Your task to perform on an android device: Go to Maps Image 0: 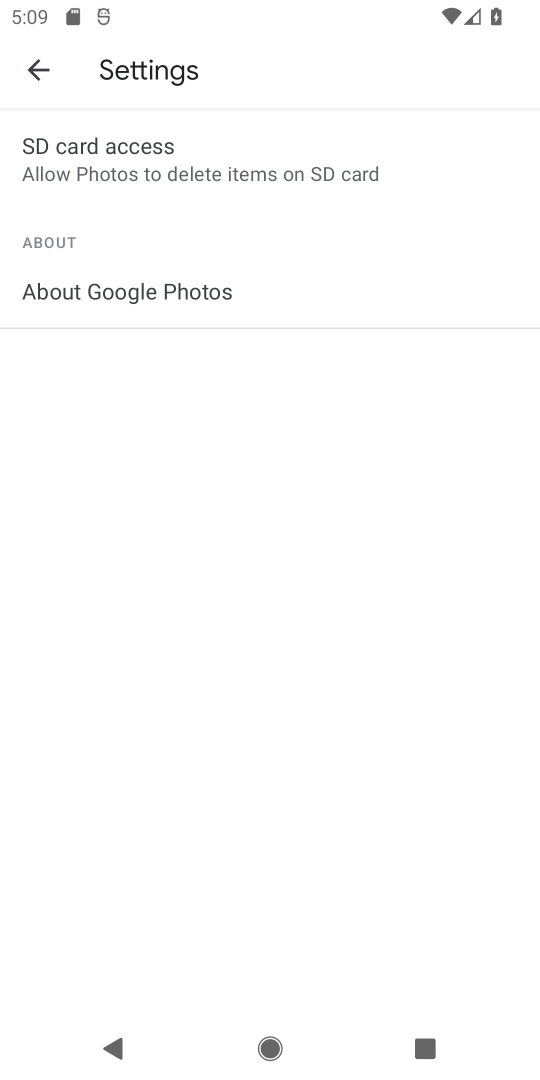
Step 0: press home button
Your task to perform on an android device: Go to Maps Image 1: 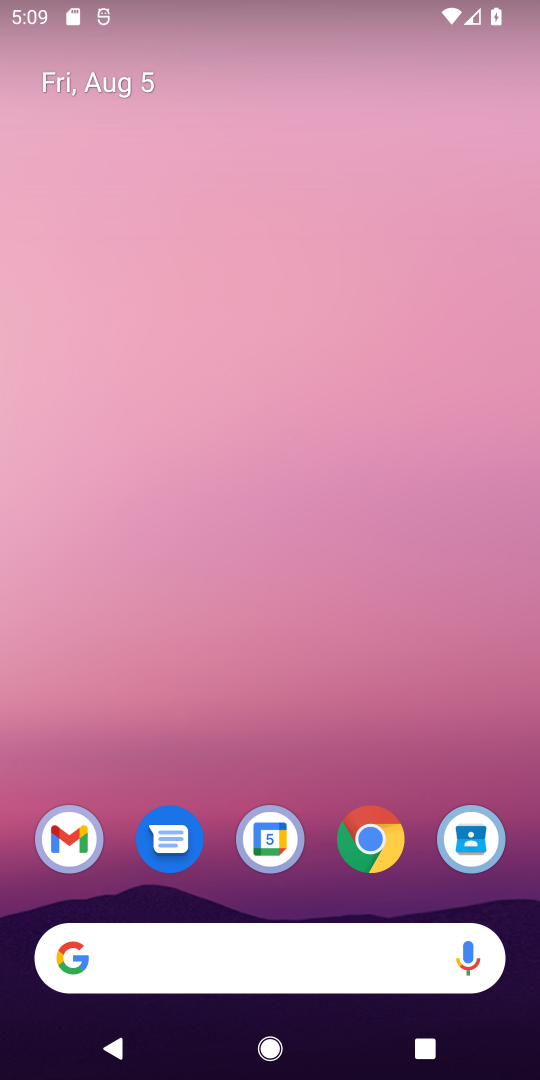
Step 1: drag from (279, 699) to (254, 234)
Your task to perform on an android device: Go to Maps Image 2: 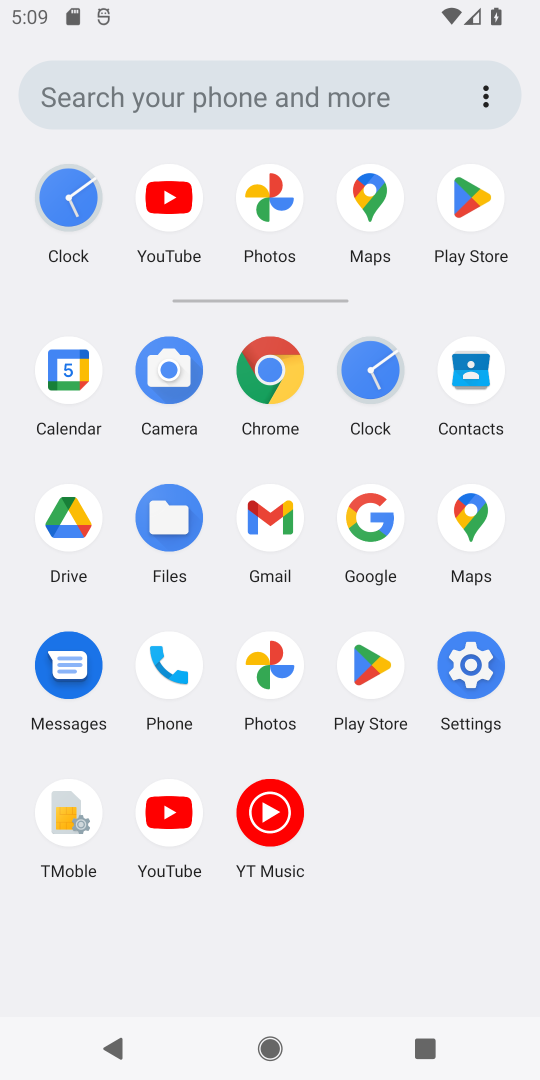
Step 2: click (347, 207)
Your task to perform on an android device: Go to Maps Image 3: 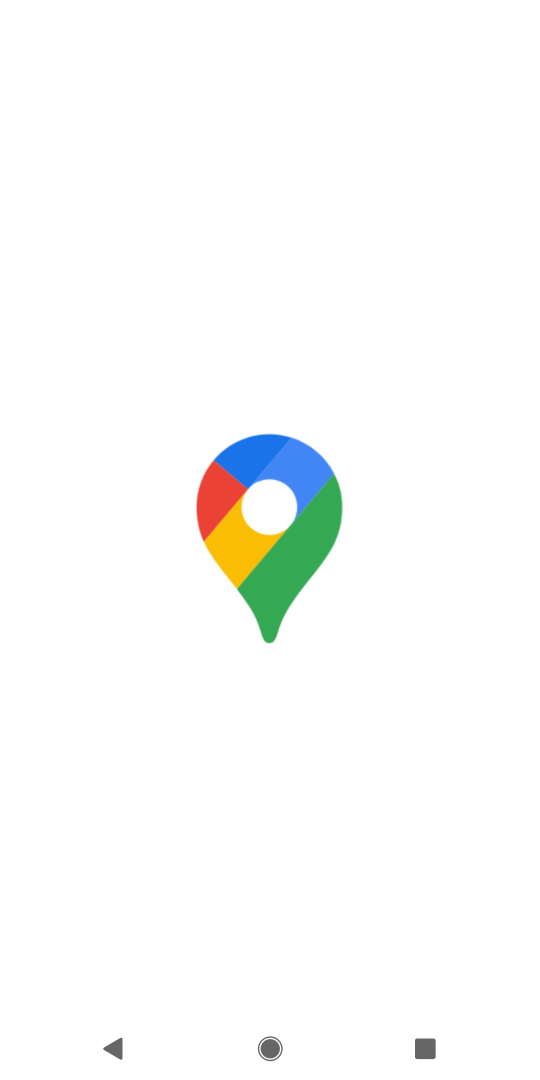
Step 3: task complete